Your task to perform on an android device: uninstall "File Manager" Image 0: 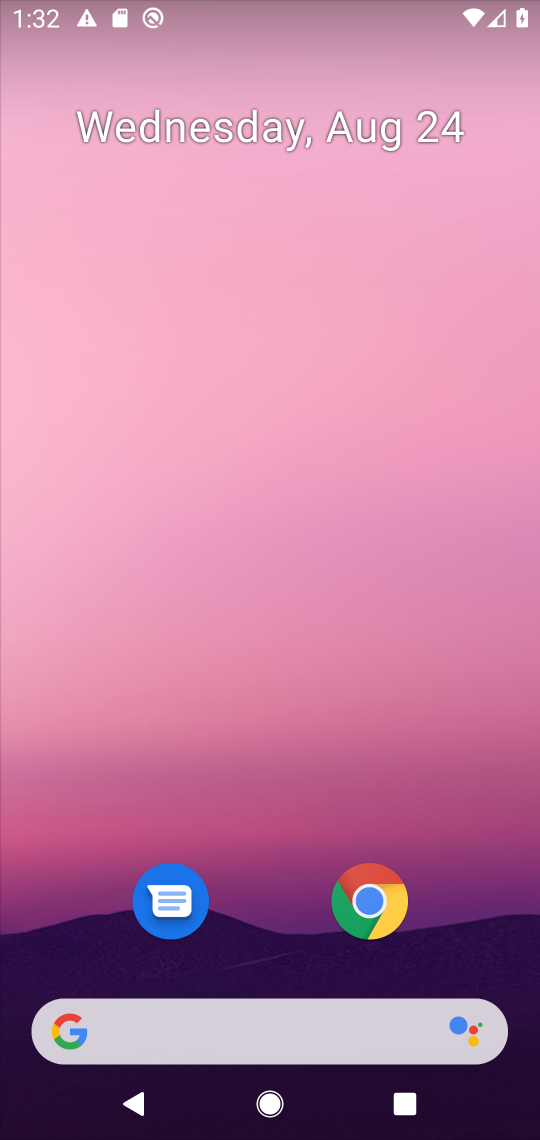
Step 0: drag from (275, 446) to (325, 50)
Your task to perform on an android device: uninstall "File Manager" Image 1: 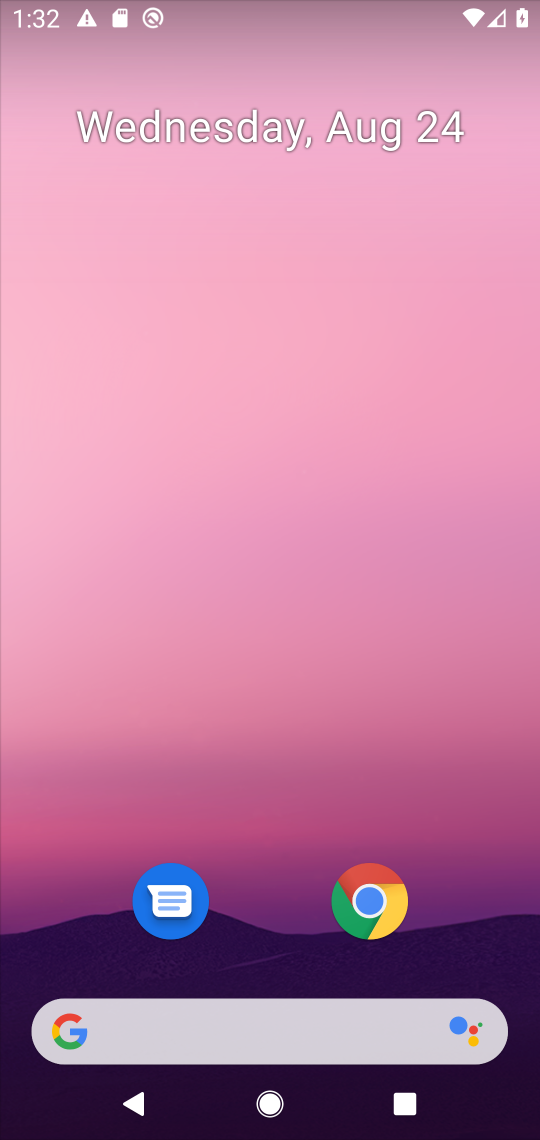
Step 1: drag from (256, 774) to (400, 166)
Your task to perform on an android device: uninstall "File Manager" Image 2: 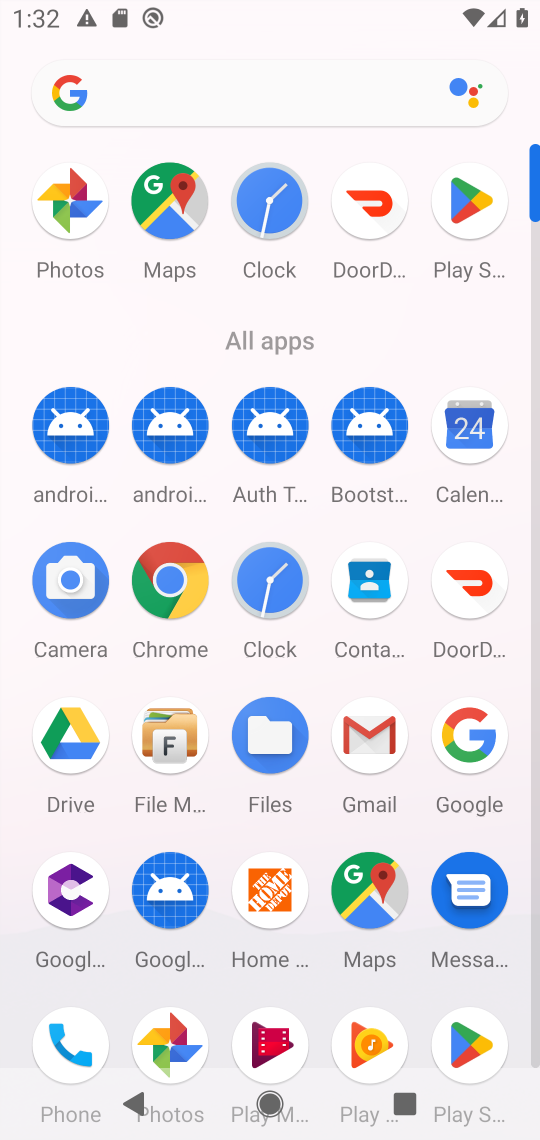
Step 2: click (474, 179)
Your task to perform on an android device: uninstall "File Manager" Image 3: 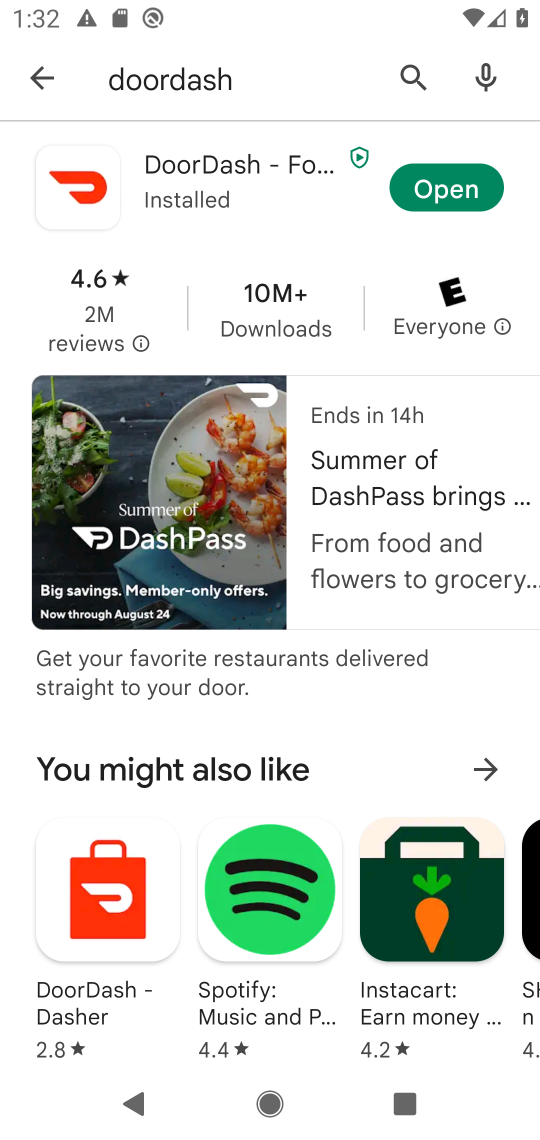
Step 3: click (406, 85)
Your task to perform on an android device: uninstall "File Manager" Image 4: 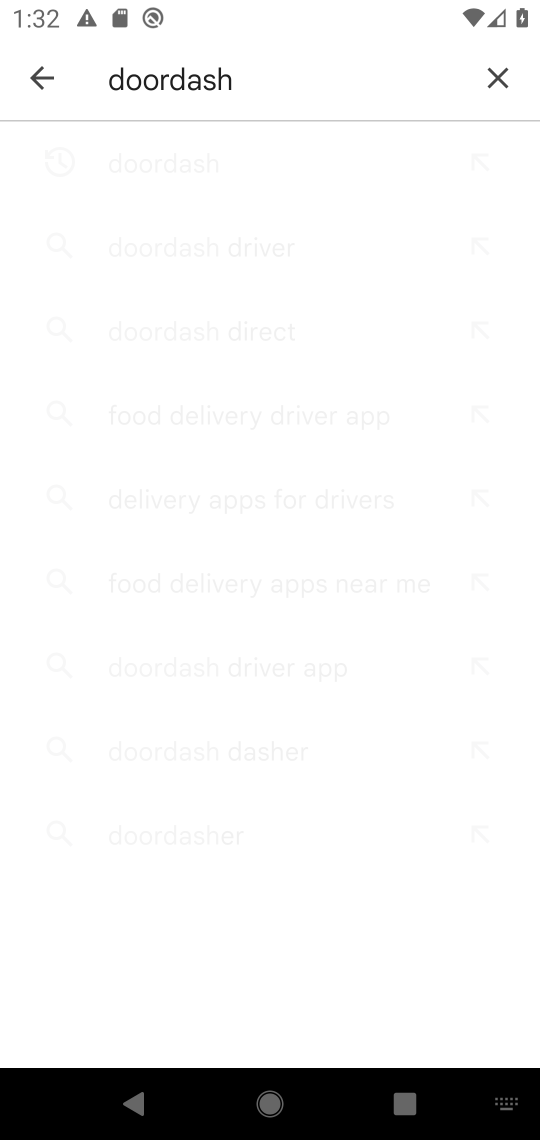
Step 4: click (495, 73)
Your task to perform on an android device: uninstall "File Manager" Image 5: 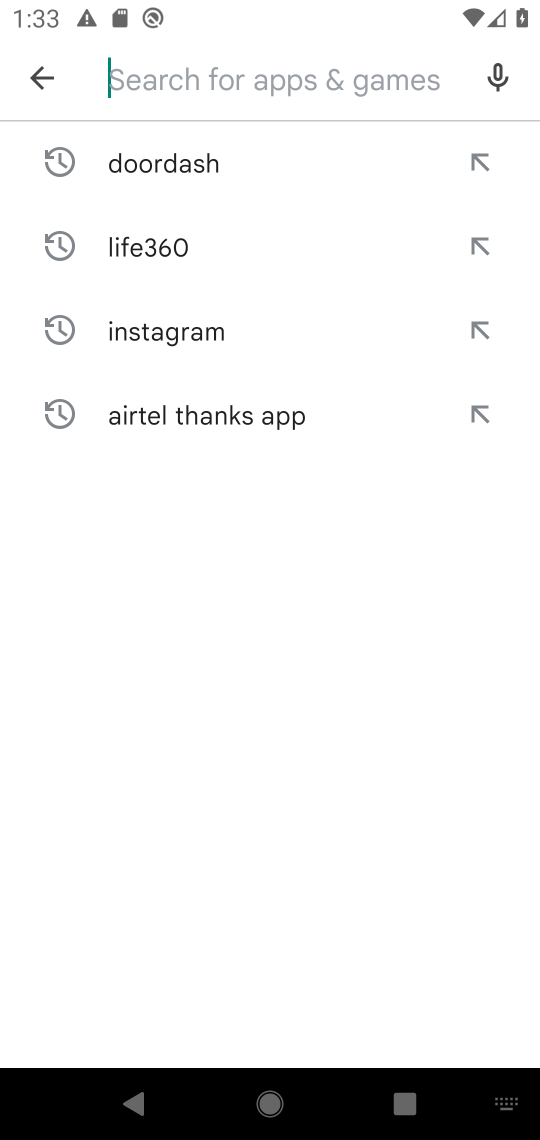
Step 5: click (138, 81)
Your task to perform on an android device: uninstall "File Manager" Image 6: 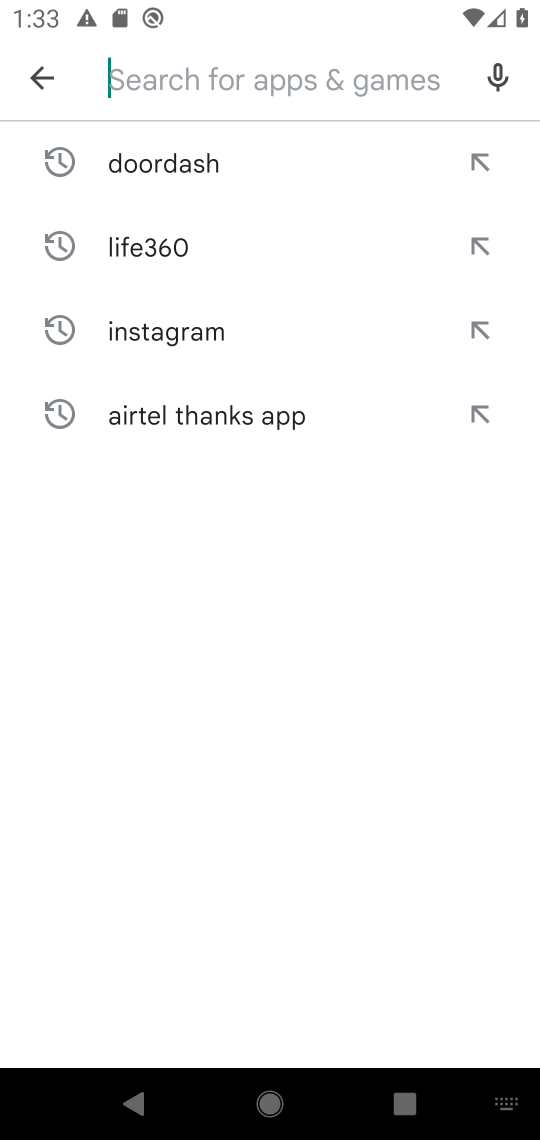
Step 6: type "File Manager"
Your task to perform on an android device: uninstall "File Manager" Image 7: 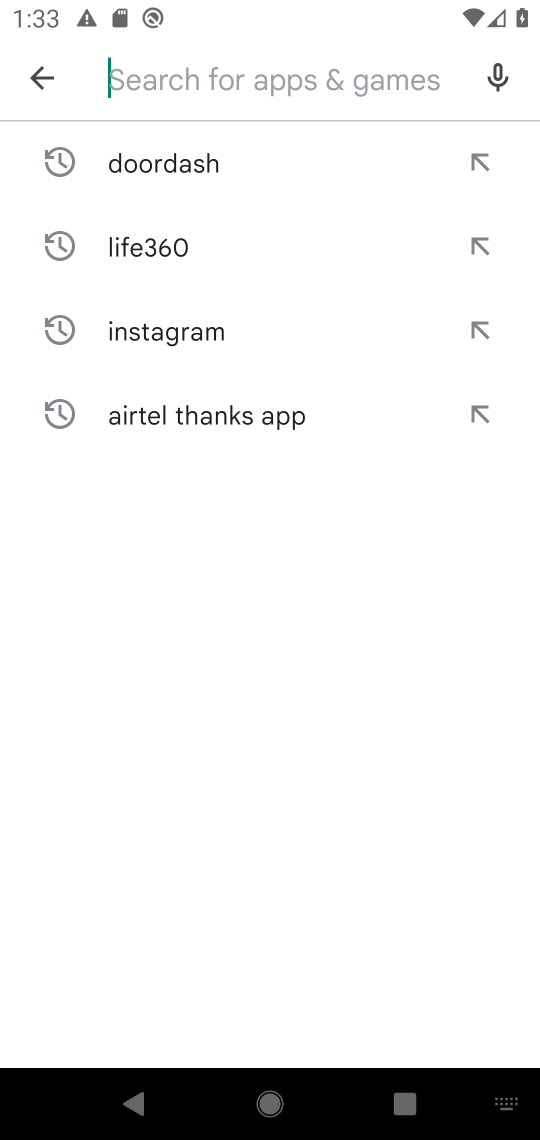
Step 7: click (258, 735)
Your task to perform on an android device: uninstall "File Manager" Image 8: 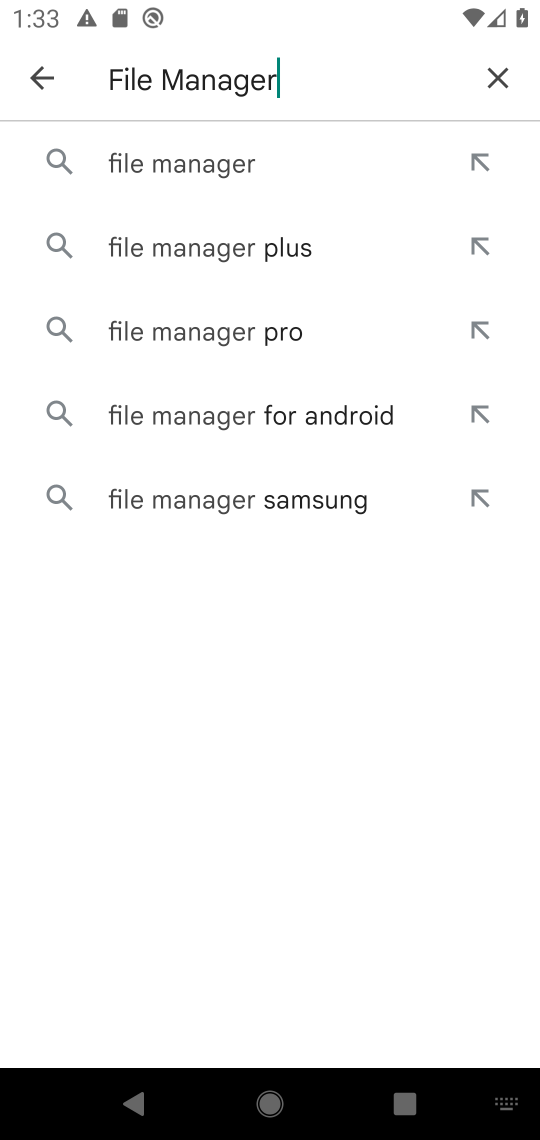
Step 8: click (231, 166)
Your task to perform on an android device: uninstall "File Manager" Image 9: 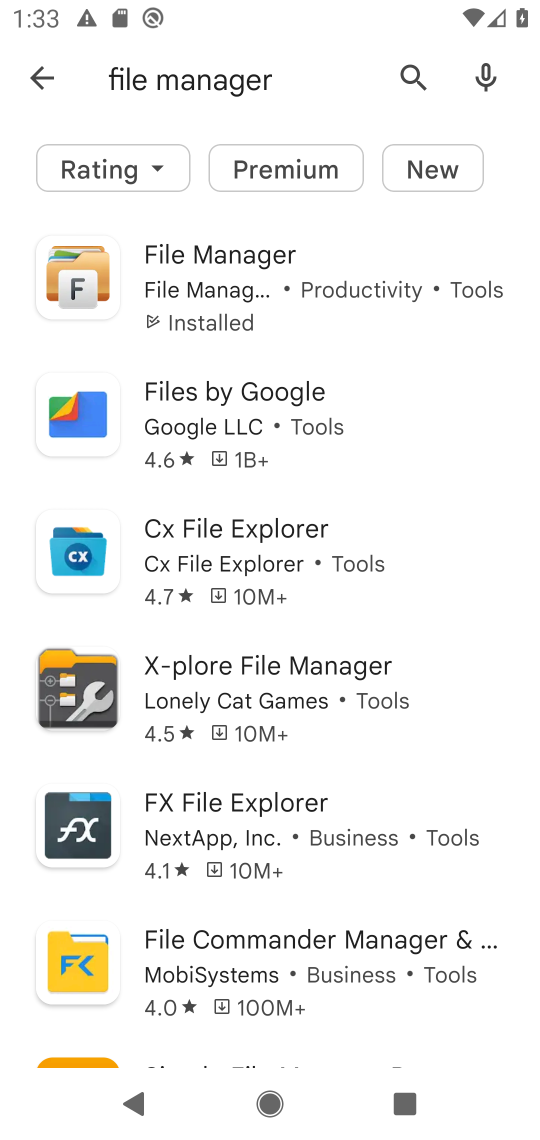
Step 9: click (272, 286)
Your task to perform on an android device: uninstall "File Manager" Image 10: 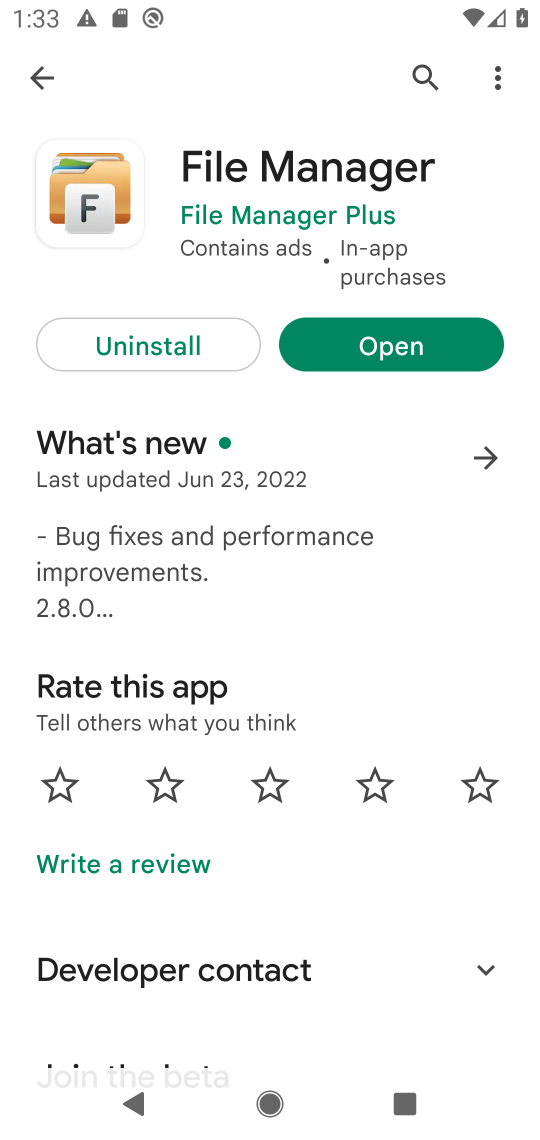
Step 10: click (141, 341)
Your task to perform on an android device: uninstall "File Manager" Image 11: 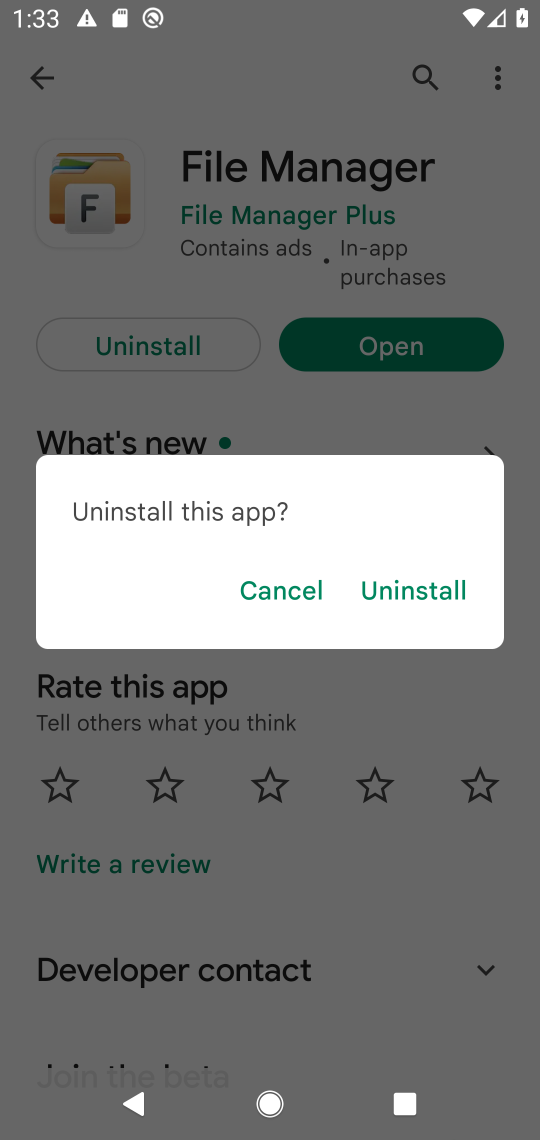
Step 11: click (408, 603)
Your task to perform on an android device: uninstall "File Manager" Image 12: 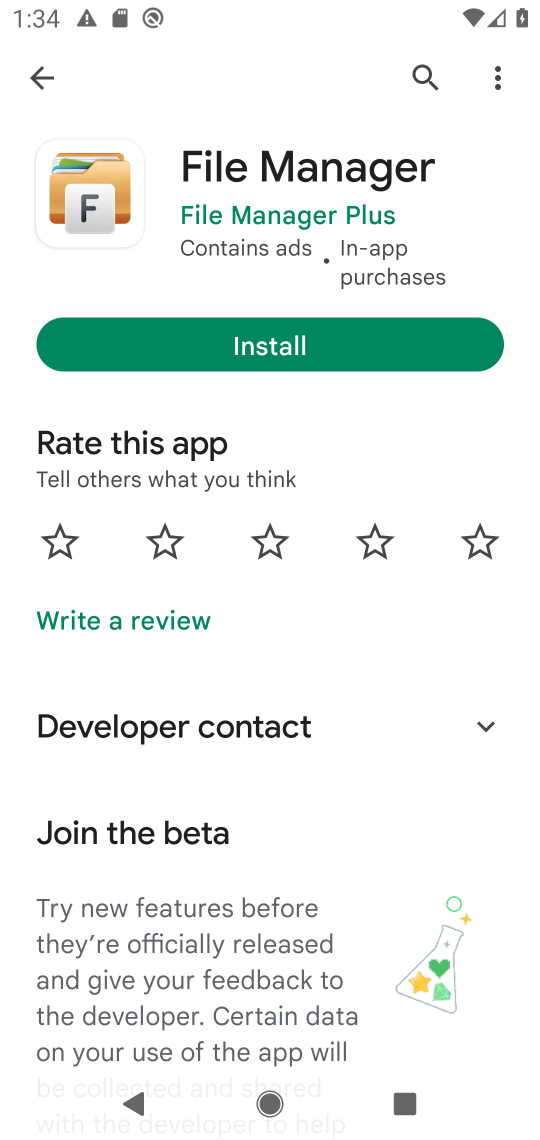
Step 12: task complete